Your task to perform on an android device: open app "Mercado Libre" (install if not already installed) and go to login screen Image 0: 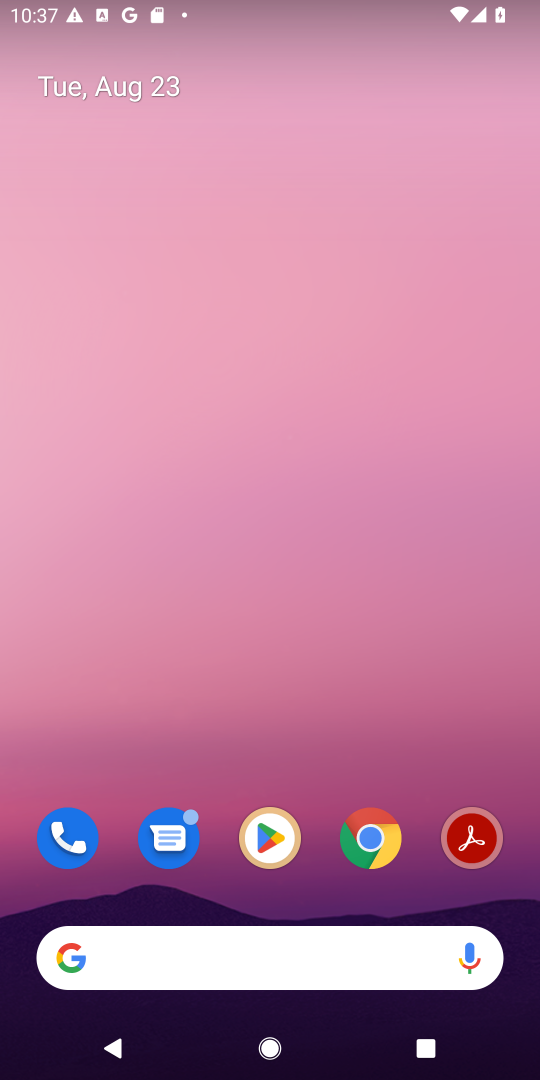
Step 0: click (258, 836)
Your task to perform on an android device: open app "Mercado Libre" (install if not already installed) and go to login screen Image 1: 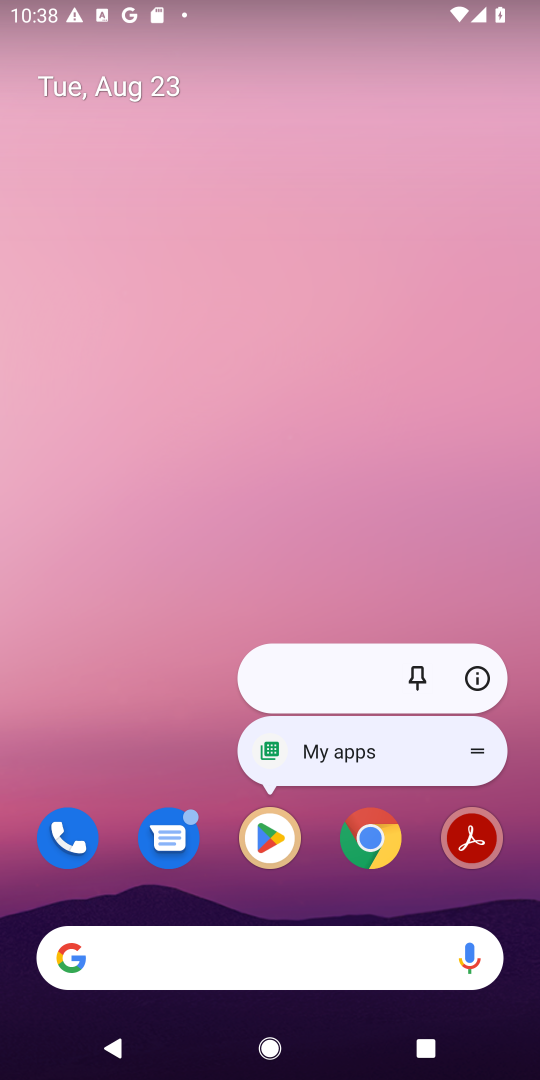
Step 1: click (266, 853)
Your task to perform on an android device: open app "Mercado Libre" (install if not already installed) and go to login screen Image 2: 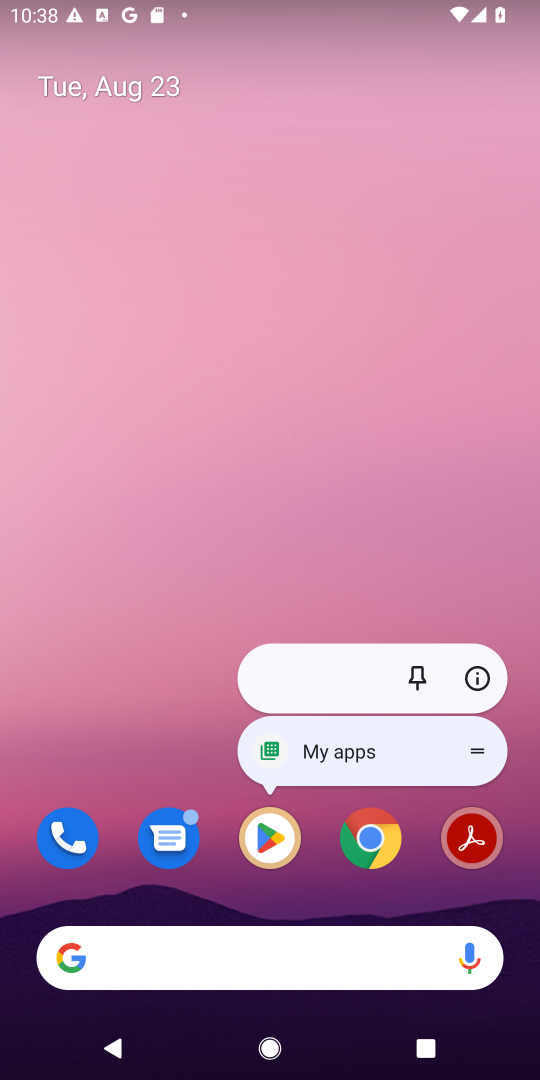
Step 2: click (273, 856)
Your task to perform on an android device: open app "Mercado Libre" (install if not already installed) and go to login screen Image 3: 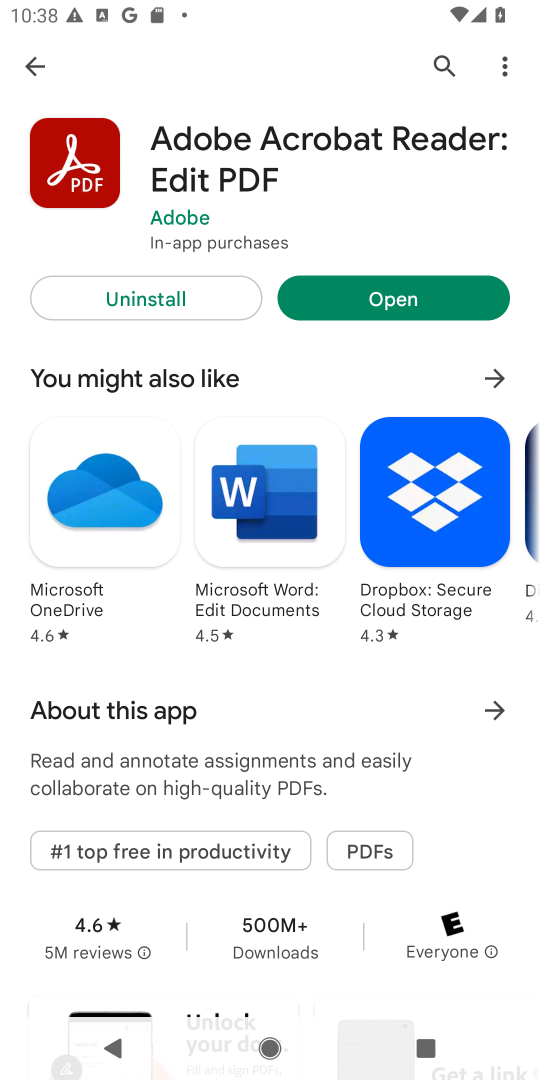
Step 3: click (447, 55)
Your task to perform on an android device: open app "Mercado Libre" (install if not already installed) and go to login screen Image 4: 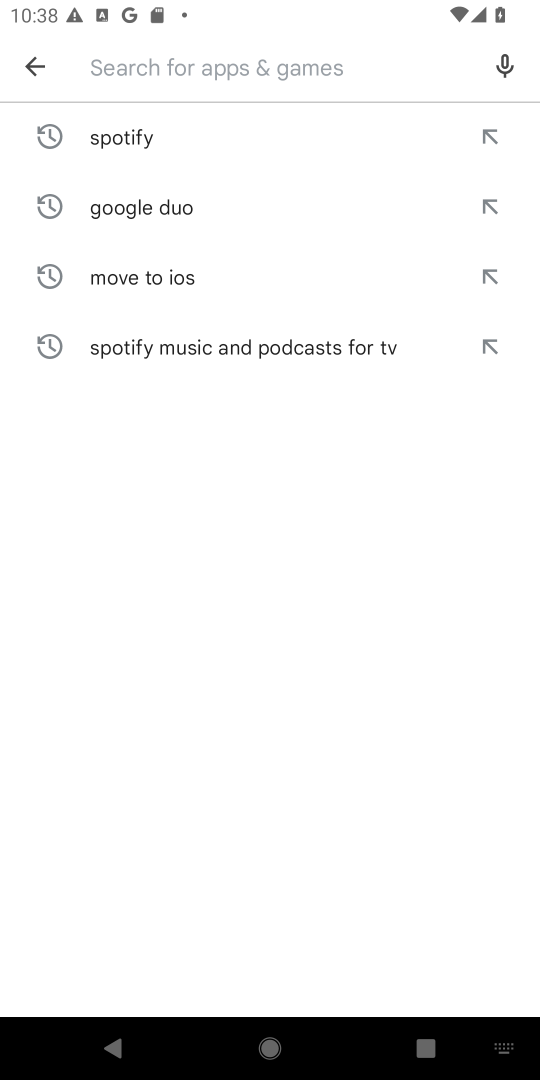
Step 4: type "Mercado Libr"
Your task to perform on an android device: open app "Mercado Libre" (install if not already installed) and go to login screen Image 5: 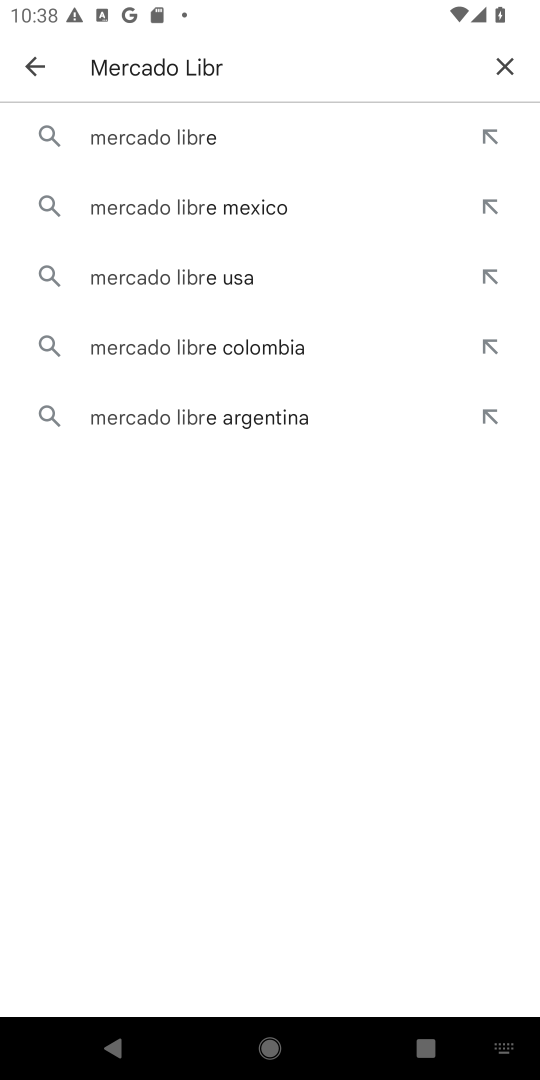
Step 5: click (188, 140)
Your task to perform on an android device: open app "Mercado Libre" (install if not already installed) and go to login screen Image 6: 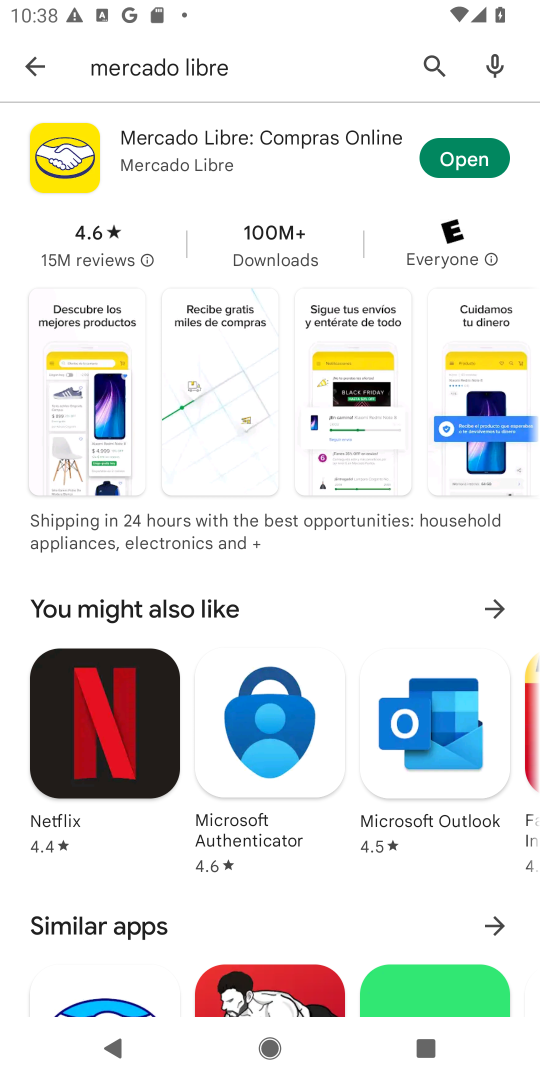
Step 6: click (459, 157)
Your task to perform on an android device: open app "Mercado Libre" (install if not already installed) and go to login screen Image 7: 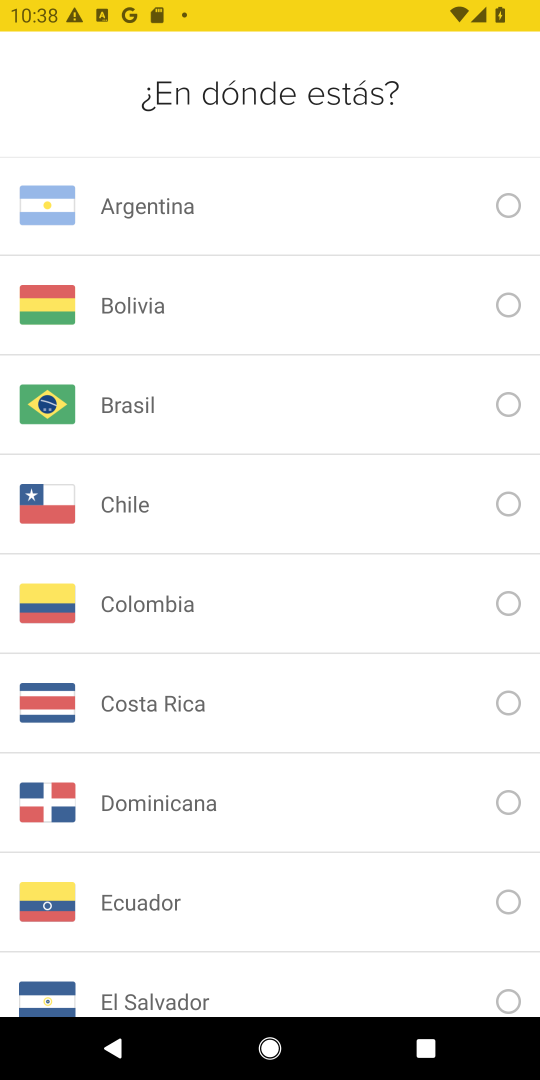
Step 7: task complete